Your task to perform on an android device: Open network settings Image 0: 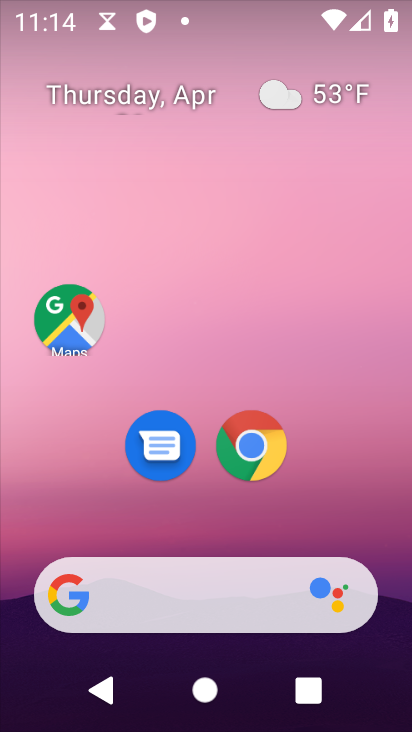
Step 0: drag from (170, 580) to (317, 109)
Your task to perform on an android device: Open network settings Image 1: 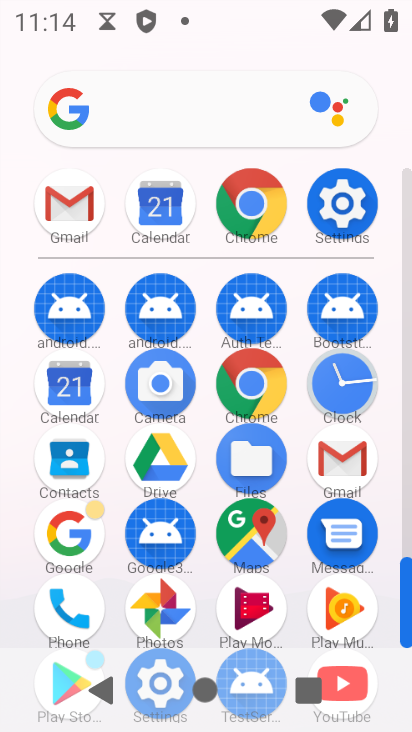
Step 1: click (354, 222)
Your task to perform on an android device: Open network settings Image 2: 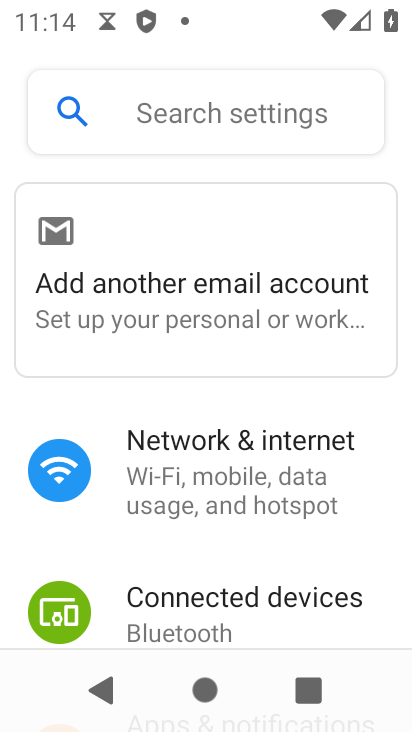
Step 2: click (272, 461)
Your task to perform on an android device: Open network settings Image 3: 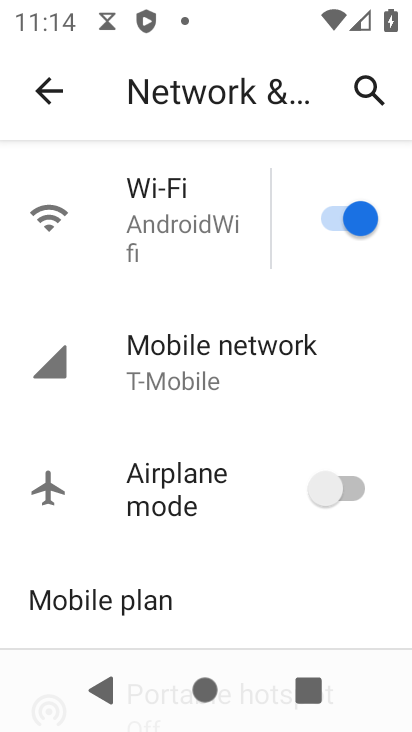
Step 3: task complete